Your task to perform on an android device: Go to privacy settings Image 0: 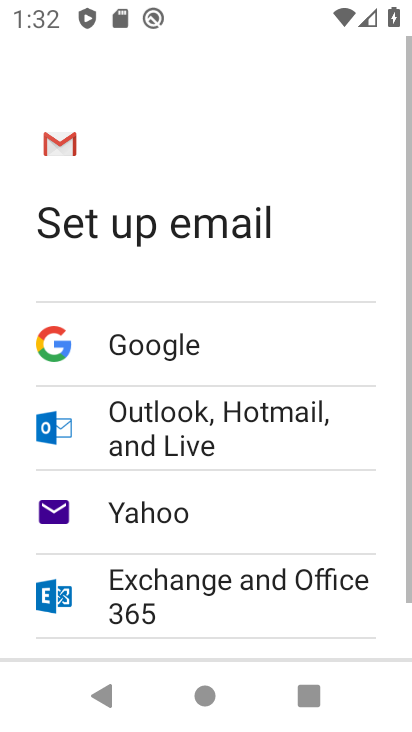
Step 0: press home button
Your task to perform on an android device: Go to privacy settings Image 1: 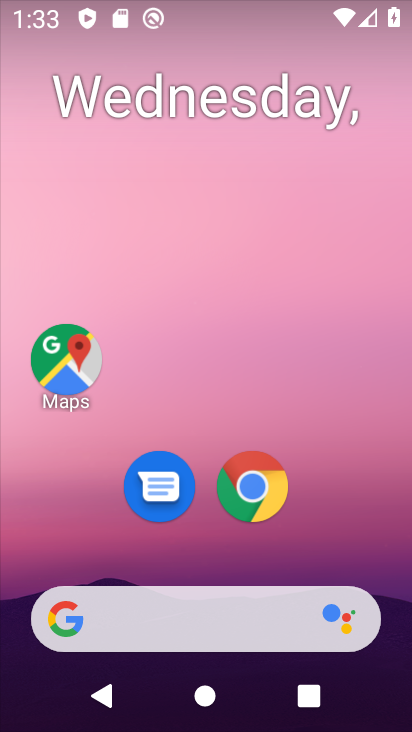
Step 1: drag from (222, 702) to (262, 158)
Your task to perform on an android device: Go to privacy settings Image 2: 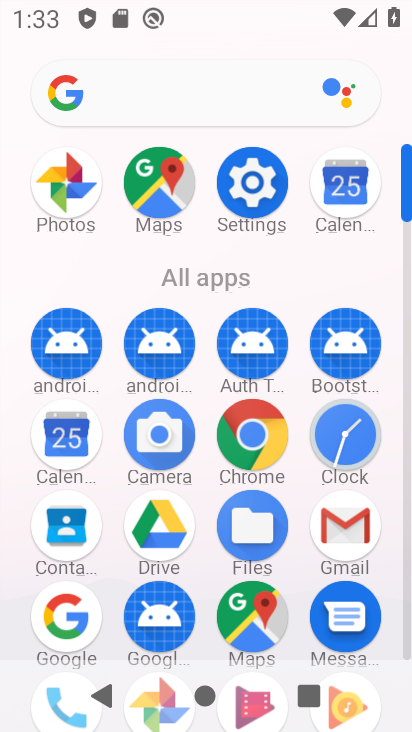
Step 2: click (246, 185)
Your task to perform on an android device: Go to privacy settings Image 3: 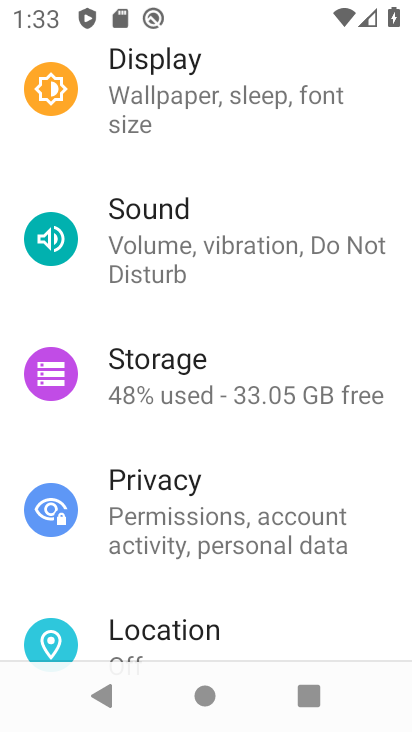
Step 3: click (227, 528)
Your task to perform on an android device: Go to privacy settings Image 4: 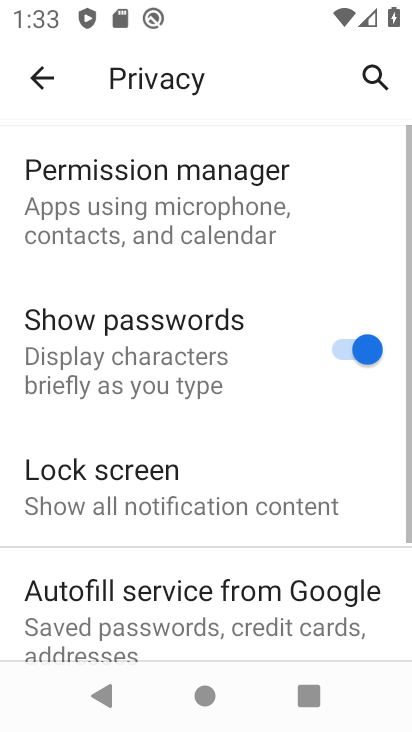
Step 4: task complete